Your task to perform on an android device: open app "Spotify: Music and Podcasts" (install if not already installed) Image 0: 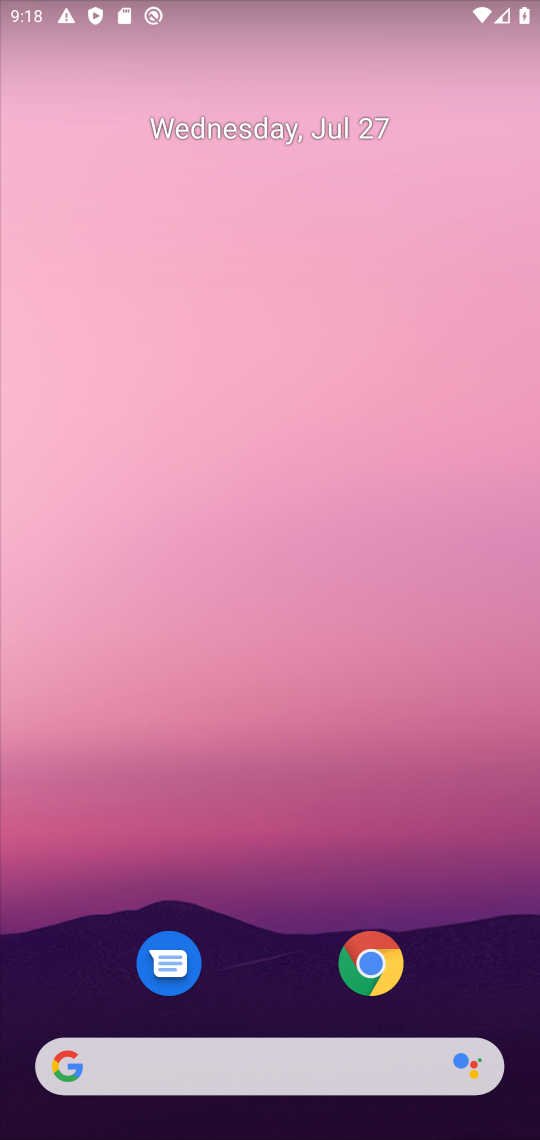
Step 0: task complete